Your task to perform on an android device: clear history in the chrome app Image 0: 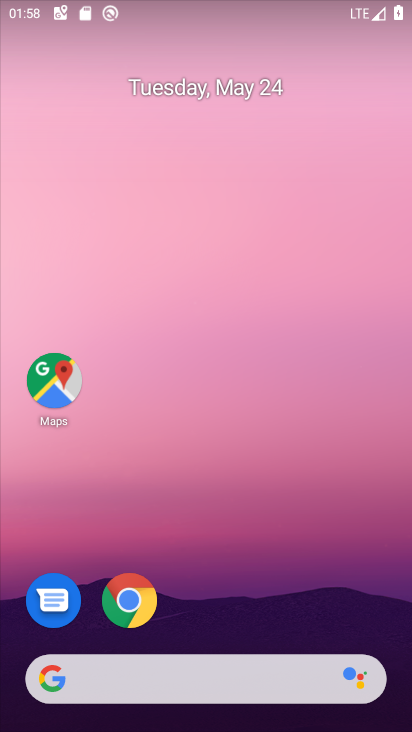
Step 0: click (138, 594)
Your task to perform on an android device: clear history in the chrome app Image 1: 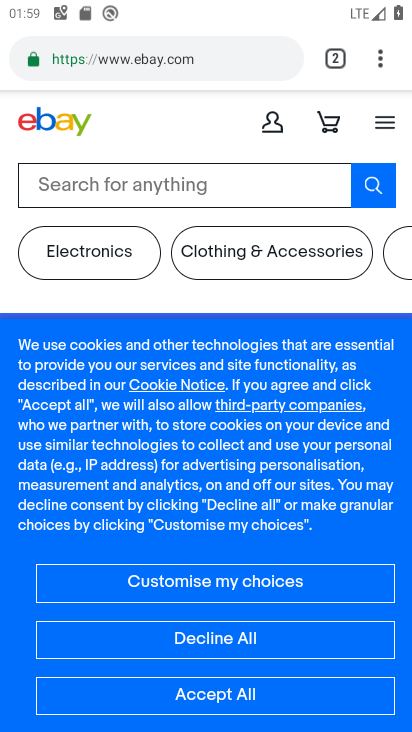
Step 1: click (375, 56)
Your task to perform on an android device: clear history in the chrome app Image 2: 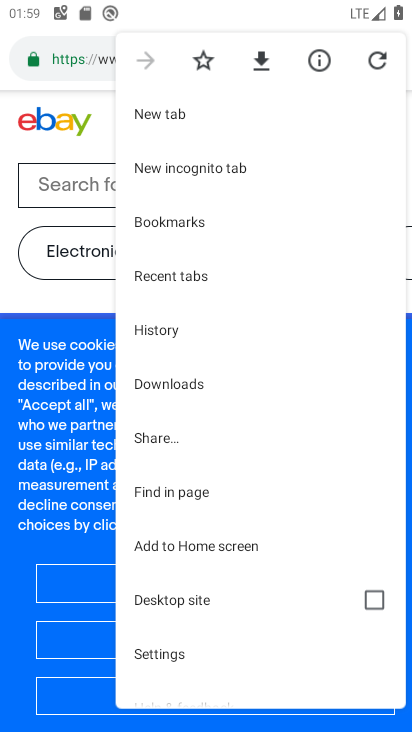
Step 2: drag from (271, 593) to (260, 288)
Your task to perform on an android device: clear history in the chrome app Image 3: 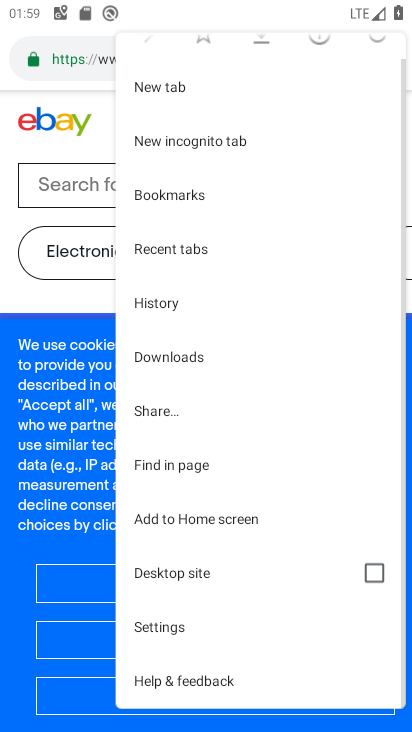
Step 3: click (182, 617)
Your task to perform on an android device: clear history in the chrome app Image 4: 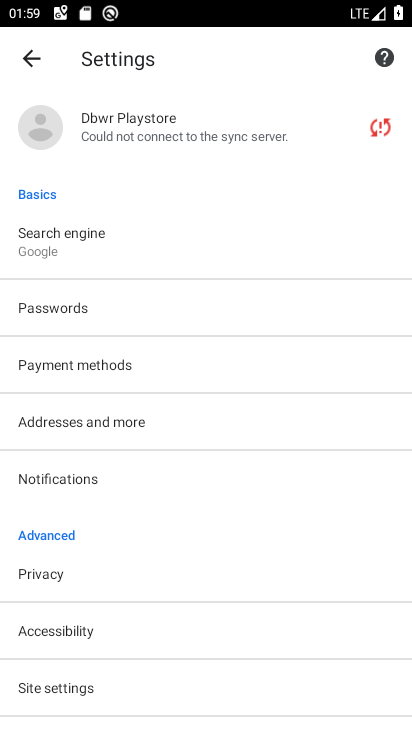
Step 4: drag from (184, 553) to (176, 303)
Your task to perform on an android device: clear history in the chrome app Image 5: 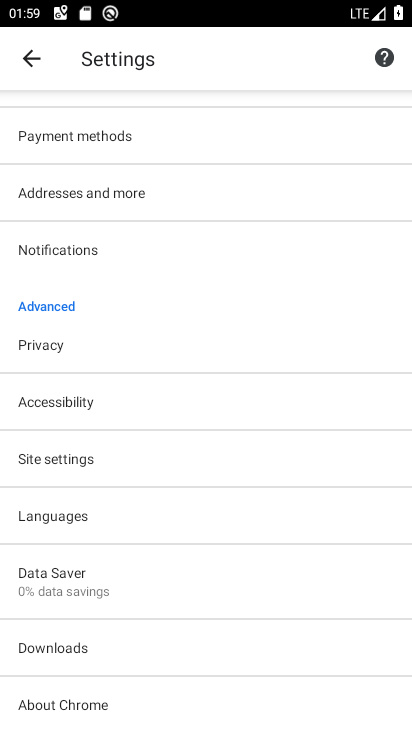
Step 5: drag from (165, 635) to (171, 320)
Your task to perform on an android device: clear history in the chrome app Image 6: 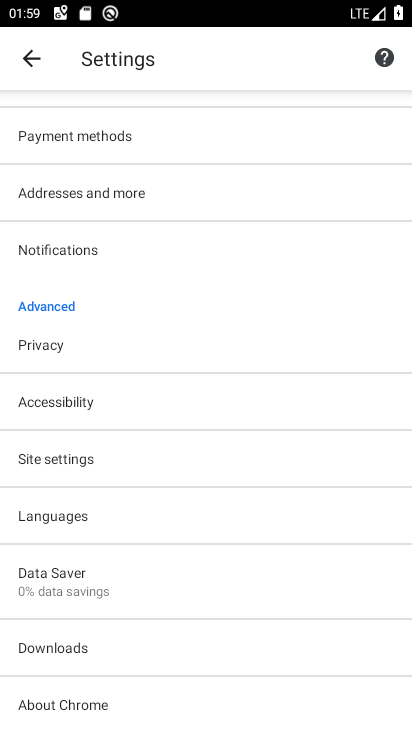
Step 6: click (164, 473)
Your task to perform on an android device: clear history in the chrome app Image 7: 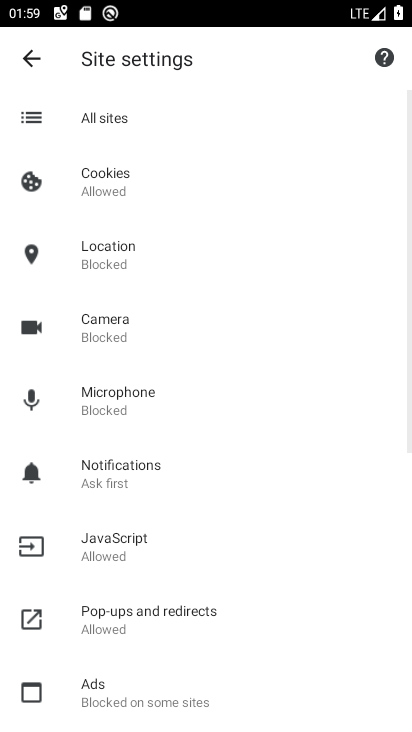
Step 7: drag from (245, 673) to (190, 284)
Your task to perform on an android device: clear history in the chrome app Image 8: 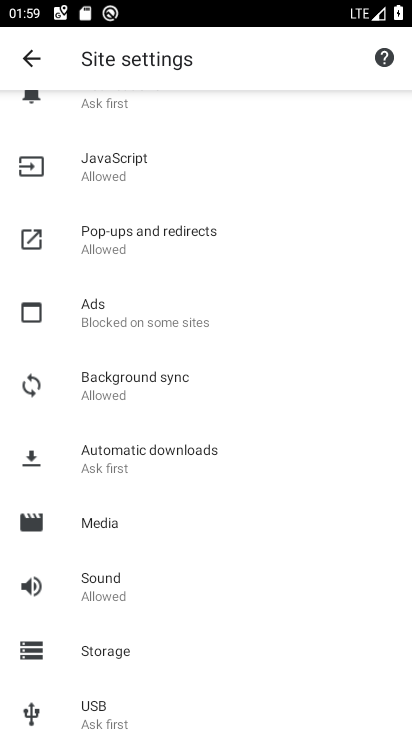
Step 8: drag from (241, 651) to (192, 310)
Your task to perform on an android device: clear history in the chrome app Image 9: 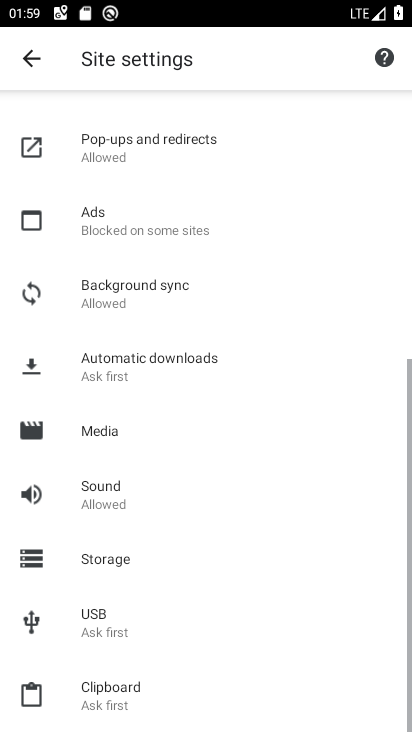
Step 9: drag from (193, 612) to (195, 454)
Your task to perform on an android device: clear history in the chrome app Image 10: 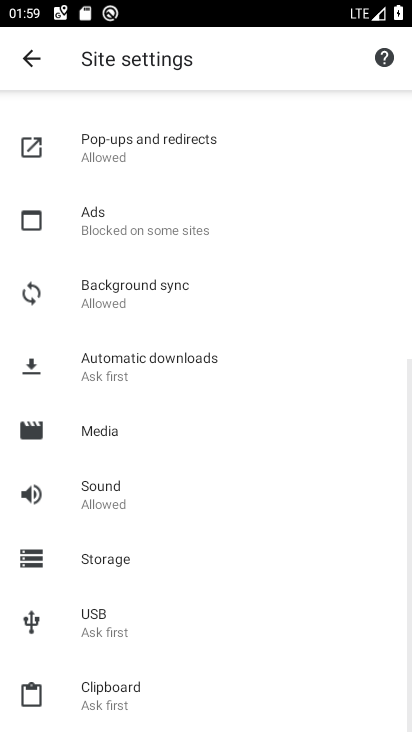
Step 10: drag from (276, 325) to (284, 586)
Your task to perform on an android device: clear history in the chrome app Image 11: 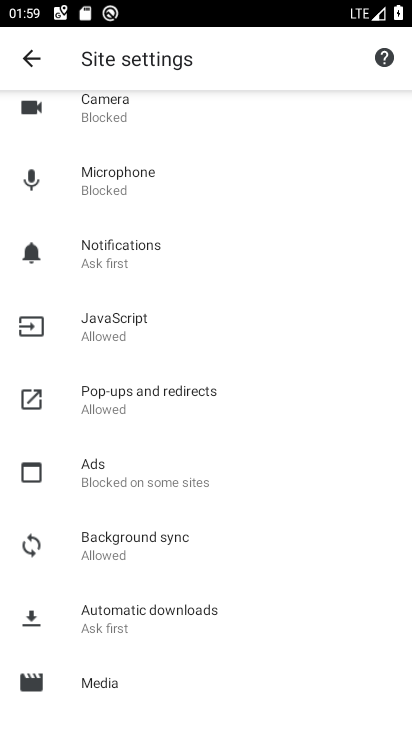
Step 11: drag from (232, 385) to (227, 609)
Your task to perform on an android device: clear history in the chrome app Image 12: 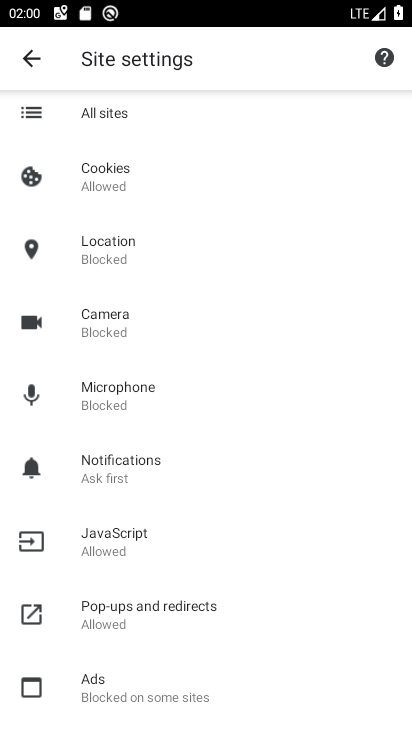
Step 12: drag from (223, 301) to (226, 592)
Your task to perform on an android device: clear history in the chrome app Image 13: 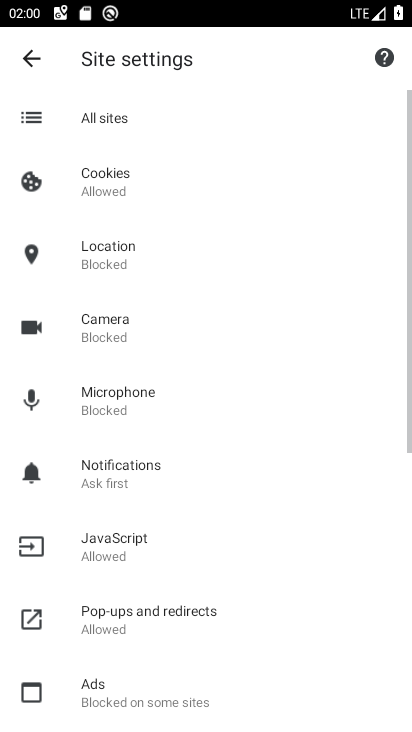
Step 13: click (131, 123)
Your task to perform on an android device: clear history in the chrome app Image 14: 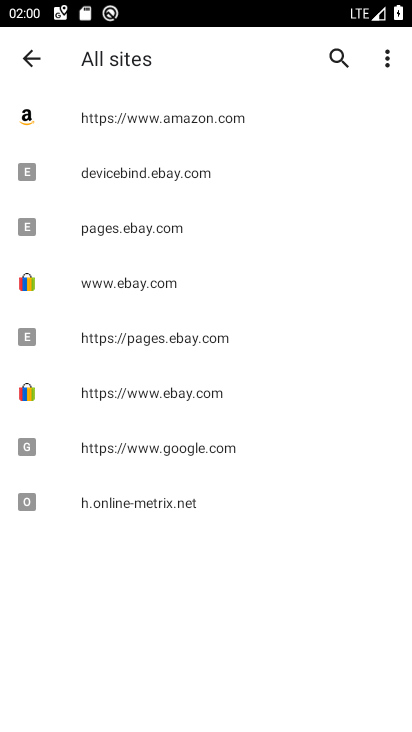
Step 14: click (383, 73)
Your task to perform on an android device: clear history in the chrome app Image 15: 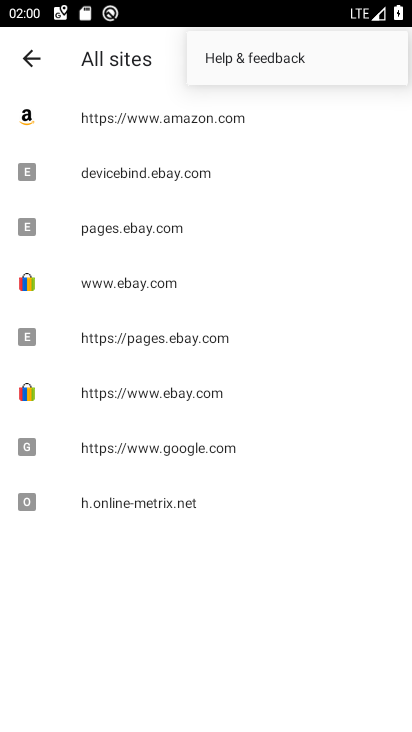
Step 15: press back button
Your task to perform on an android device: clear history in the chrome app Image 16: 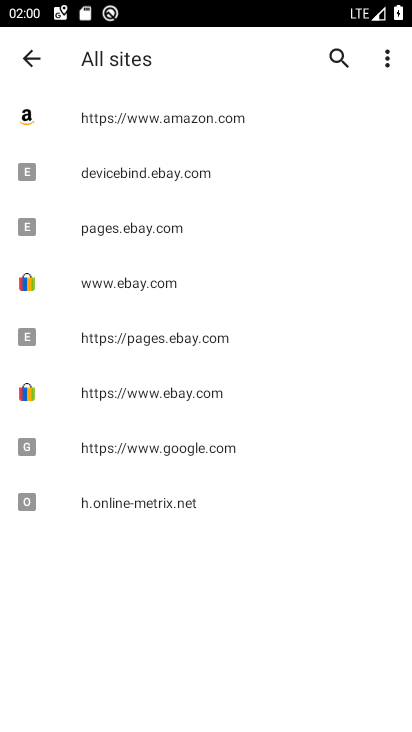
Step 16: press back button
Your task to perform on an android device: clear history in the chrome app Image 17: 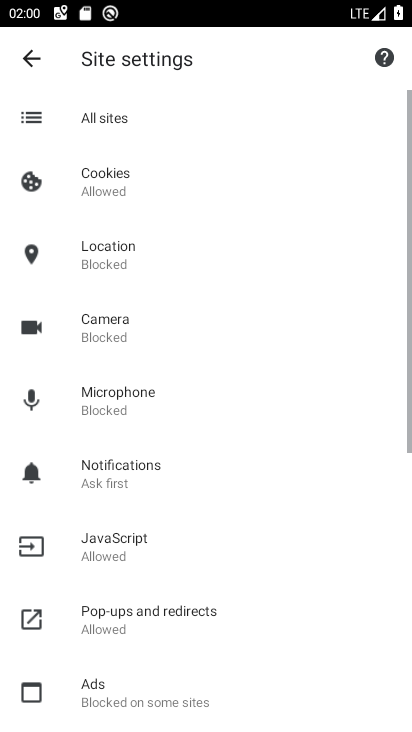
Step 17: press back button
Your task to perform on an android device: clear history in the chrome app Image 18: 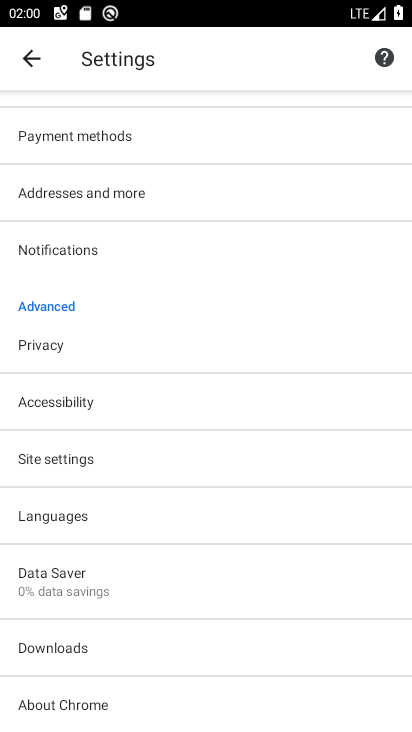
Step 18: click (214, 408)
Your task to perform on an android device: clear history in the chrome app Image 19: 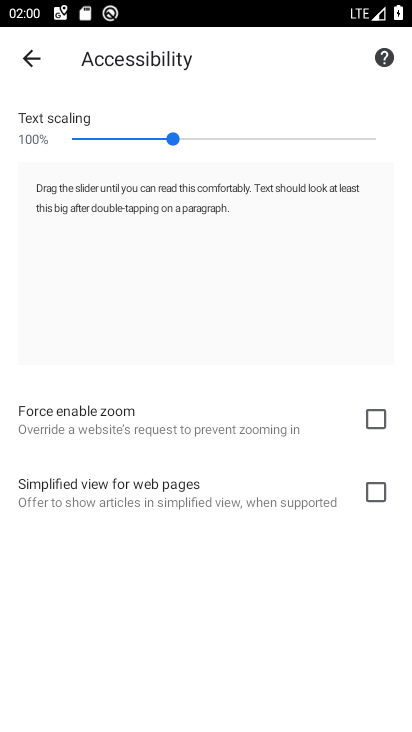
Step 19: press back button
Your task to perform on an android device: clear history in the chrome app Image 20: 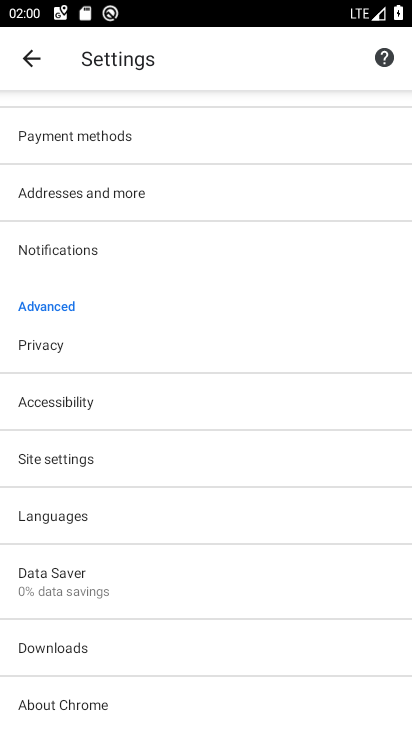
Step 20: click (158, 702)
Your task to perform on an android device: clear history in the chrome app Image 21: 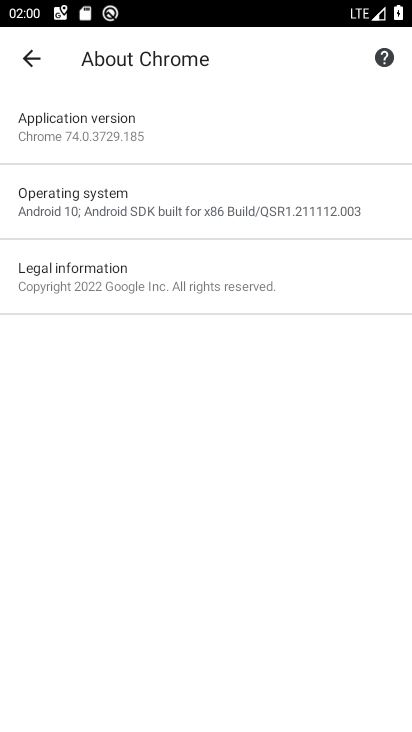
Step 21: drag from (167, 627) to (181, 253)
Your task to perform on an android device: clear history in the chrome app Image 22: 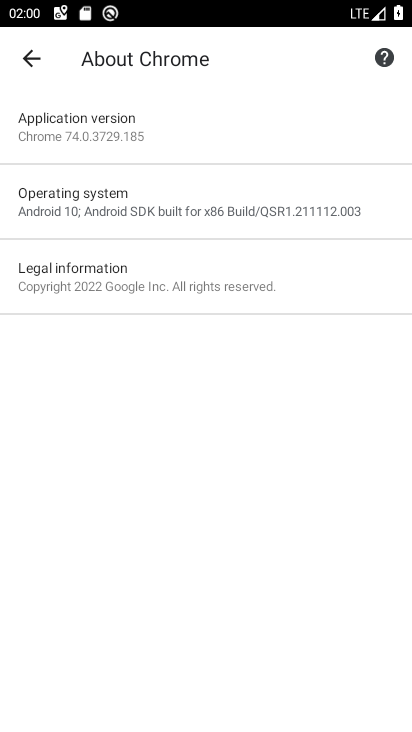
Step 22: press back button
Your task to perform on an android device: clear history in the chrome app Image 23: 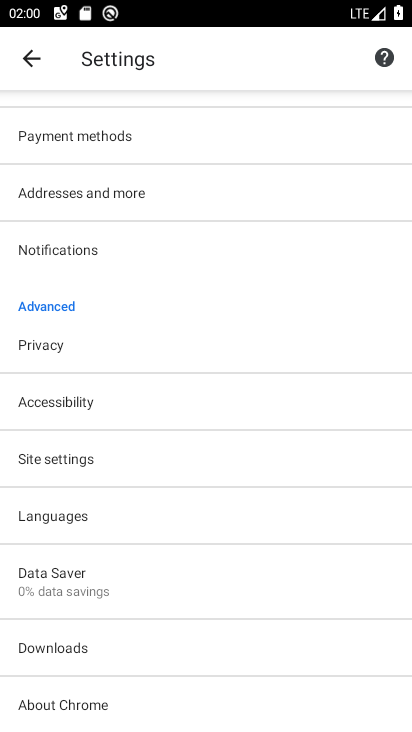
Step 23: click (179, 418)
Your task to perform on an android device: clear history in the chrome app Image 24: 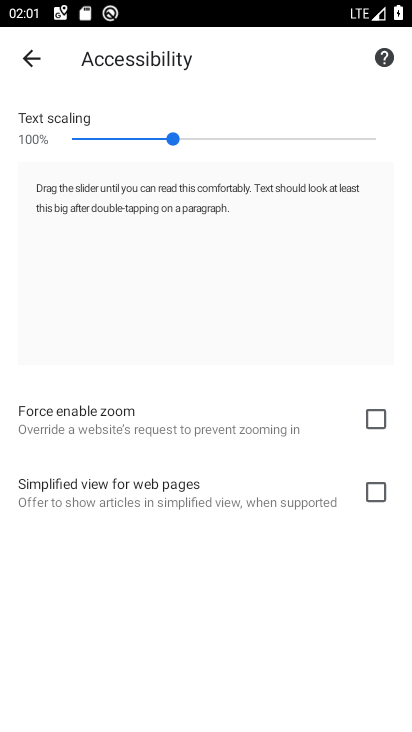
Step 24: press back button
Your task to perform on an android device: clear history in the chrome app Image 25: 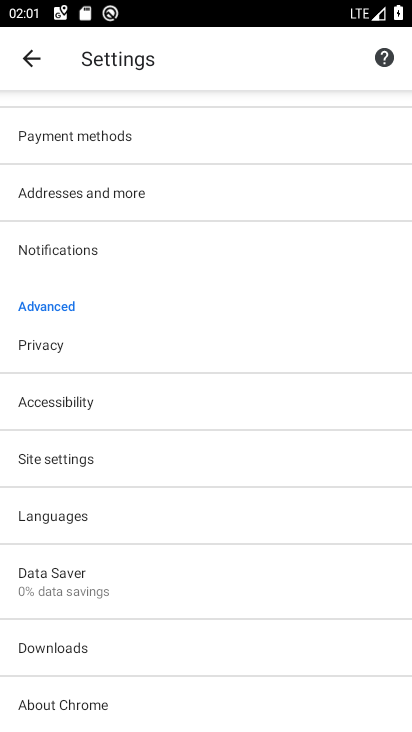
Step 25: click (114, 356)
Your task to perform on an android device: clear history in the chrome app Image 26: 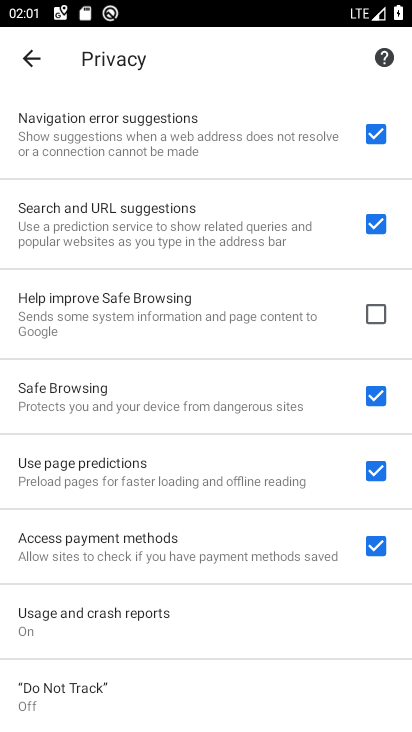
Step 26: drag from (180, 656) to (162, 373)
Your task to perform on an android device: clear history in the chrome app Image 27: 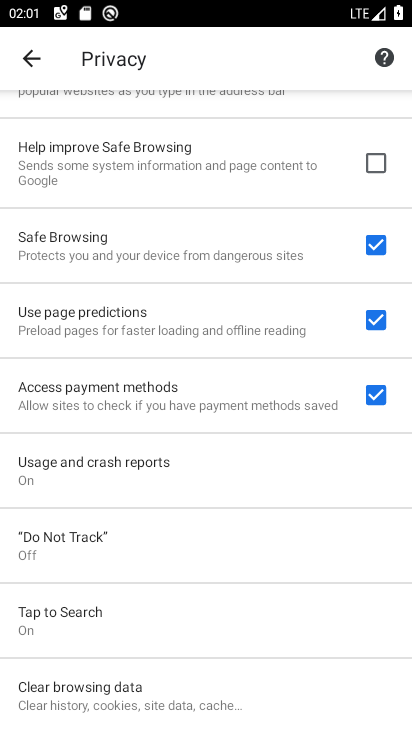
Step 27: click (149, 692)
Your task to perform on an android device: clear history in the chrome app Image 28: 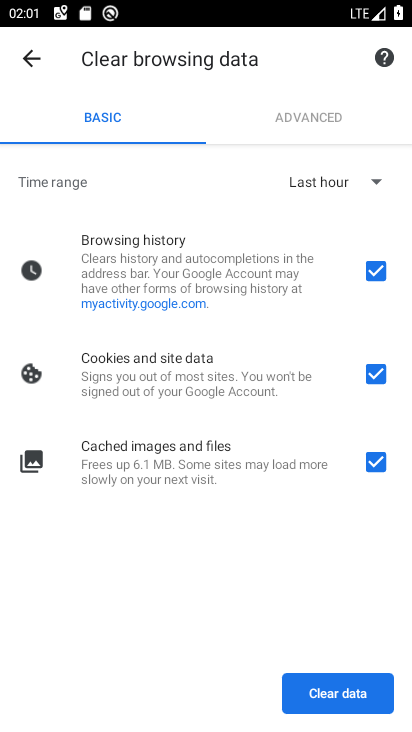
Step 28: click (388, 378)
Your task to perform on an android device: clear history in the chrome app Image 29: 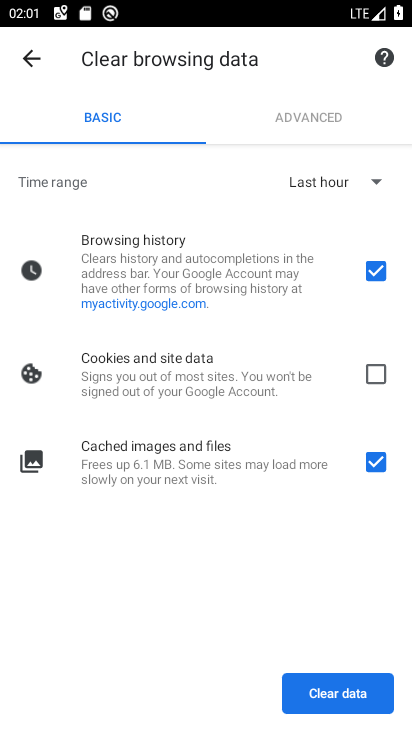
Step 29: click (379, 458)
Your task to perform on an android device: clear history in the chrome app Image 30: 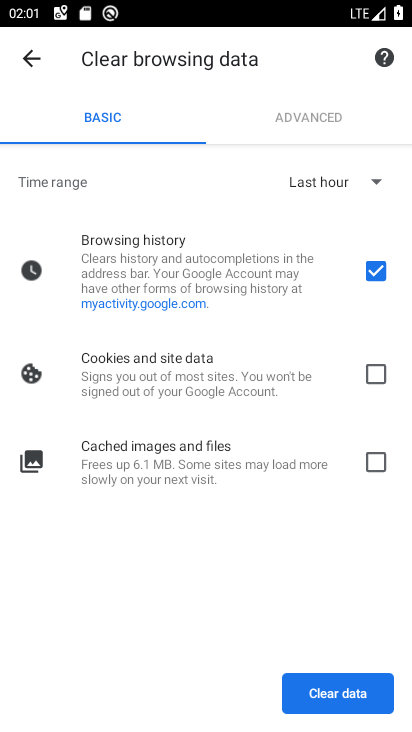
Step 30: click (367, 691)
Your task to perform on an android device: clear history in the chrome app Image 31: 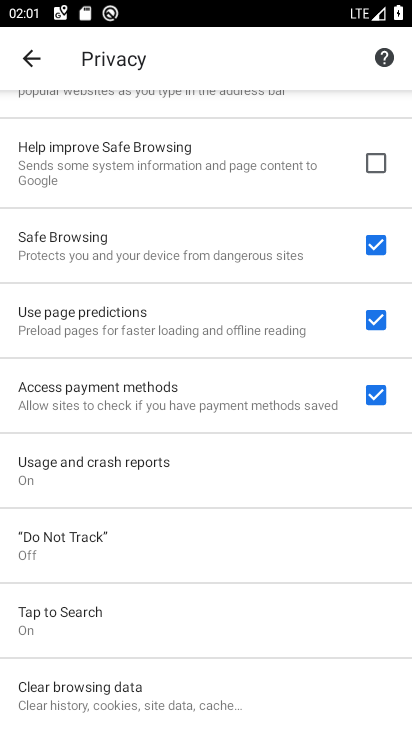
Step 31: task complete